Your task to perform on an android device: turn off javascript in the chrome app Image 0: 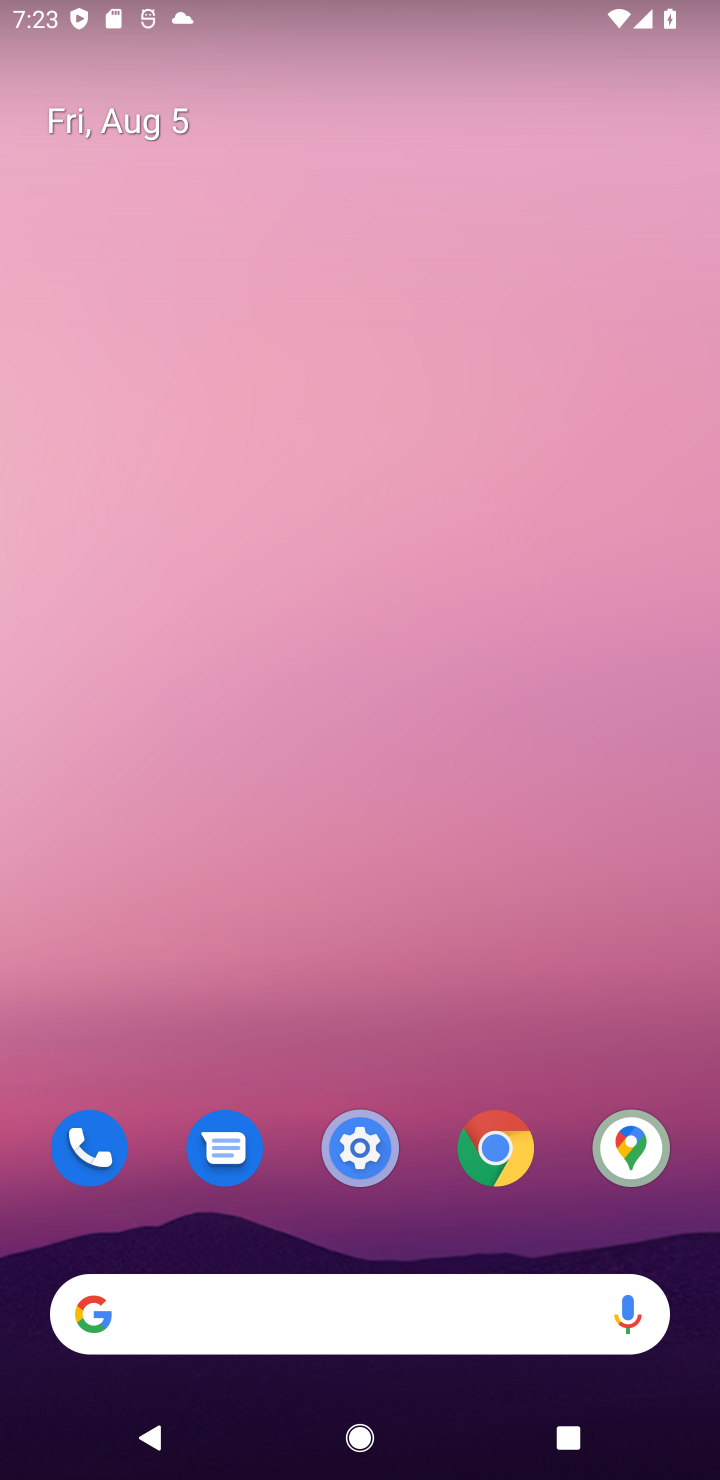
Step 0: click (476, 1165)
Your task to perform on an android device: turn off javascript in the chrome app Image 1: 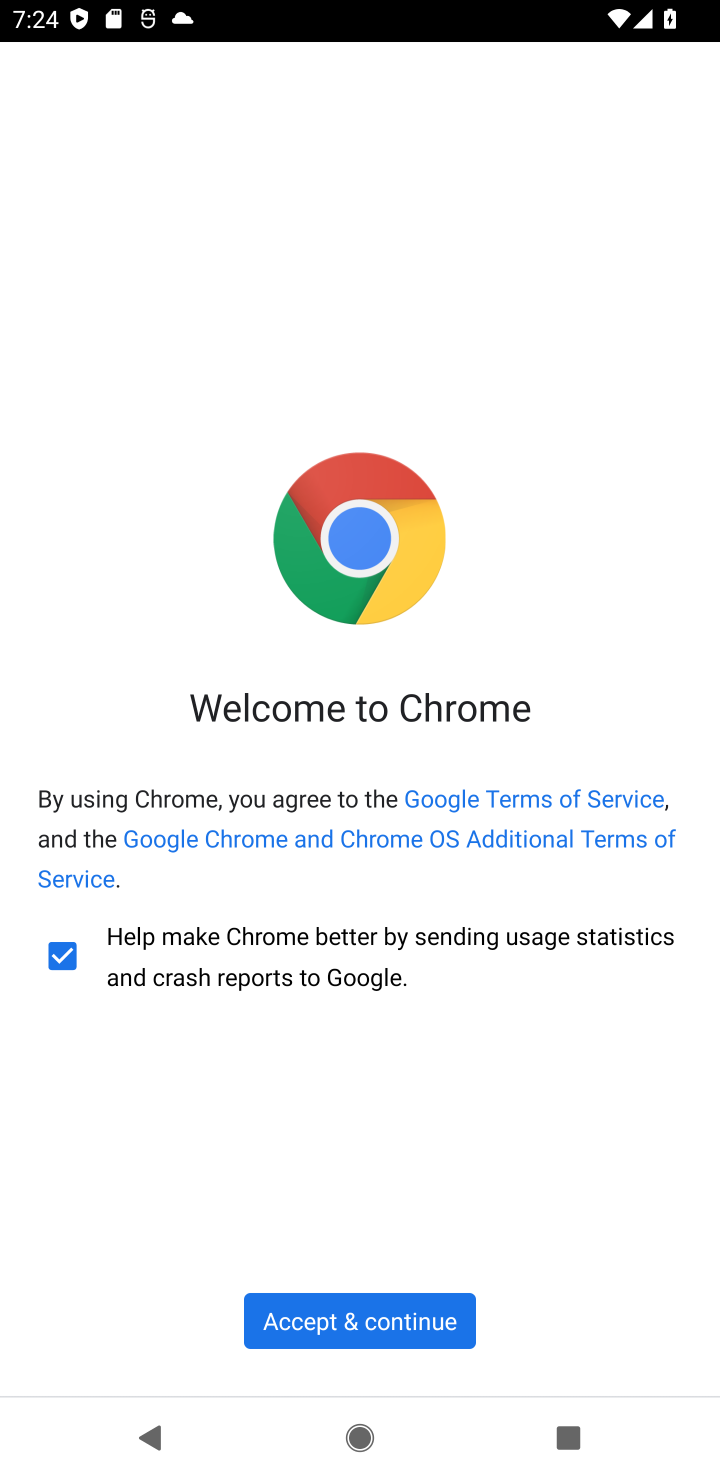
Step 1: click (321, 1297)
Your task to perform on an android device: turn off javascript in the chrome app Image 2: 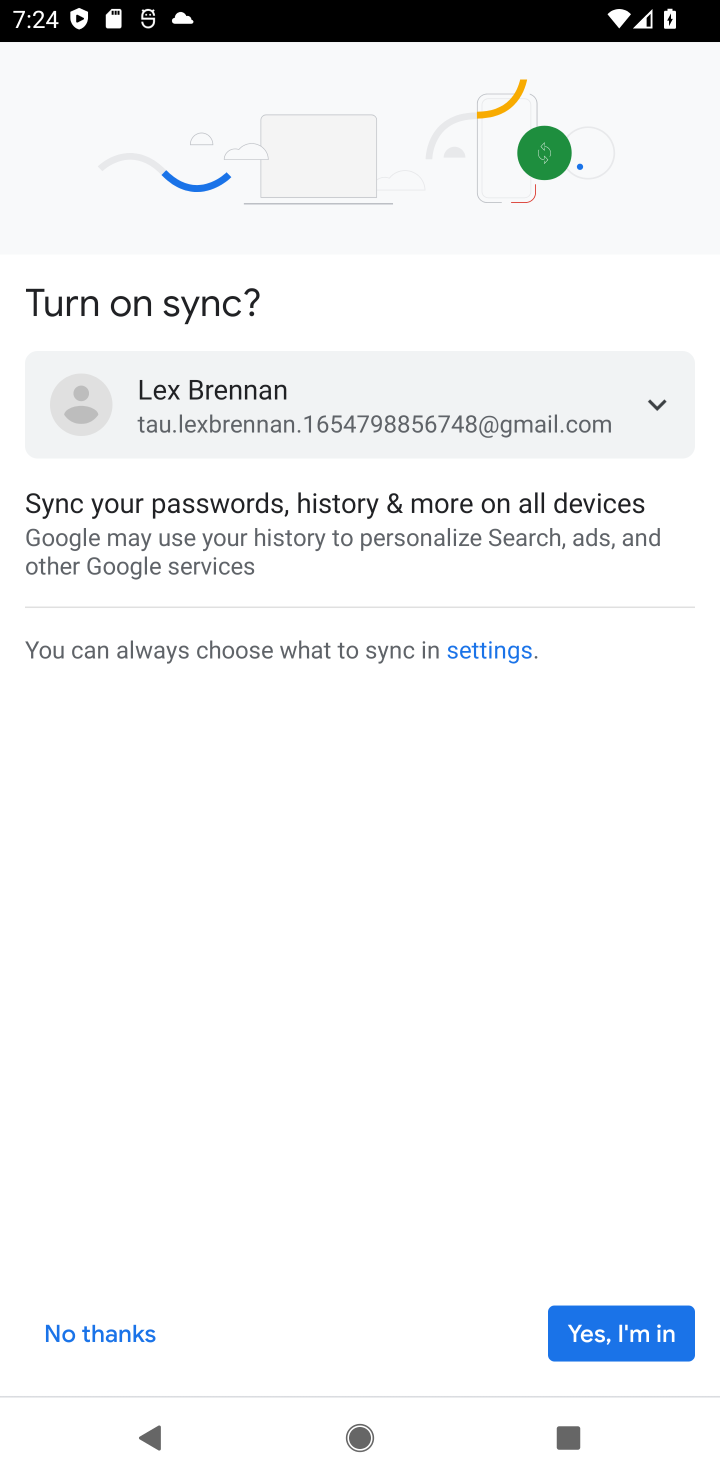
Step 2: click (571, 1327)
Your task to perform on an android device: turn off javascript in the chrome app Image 3: 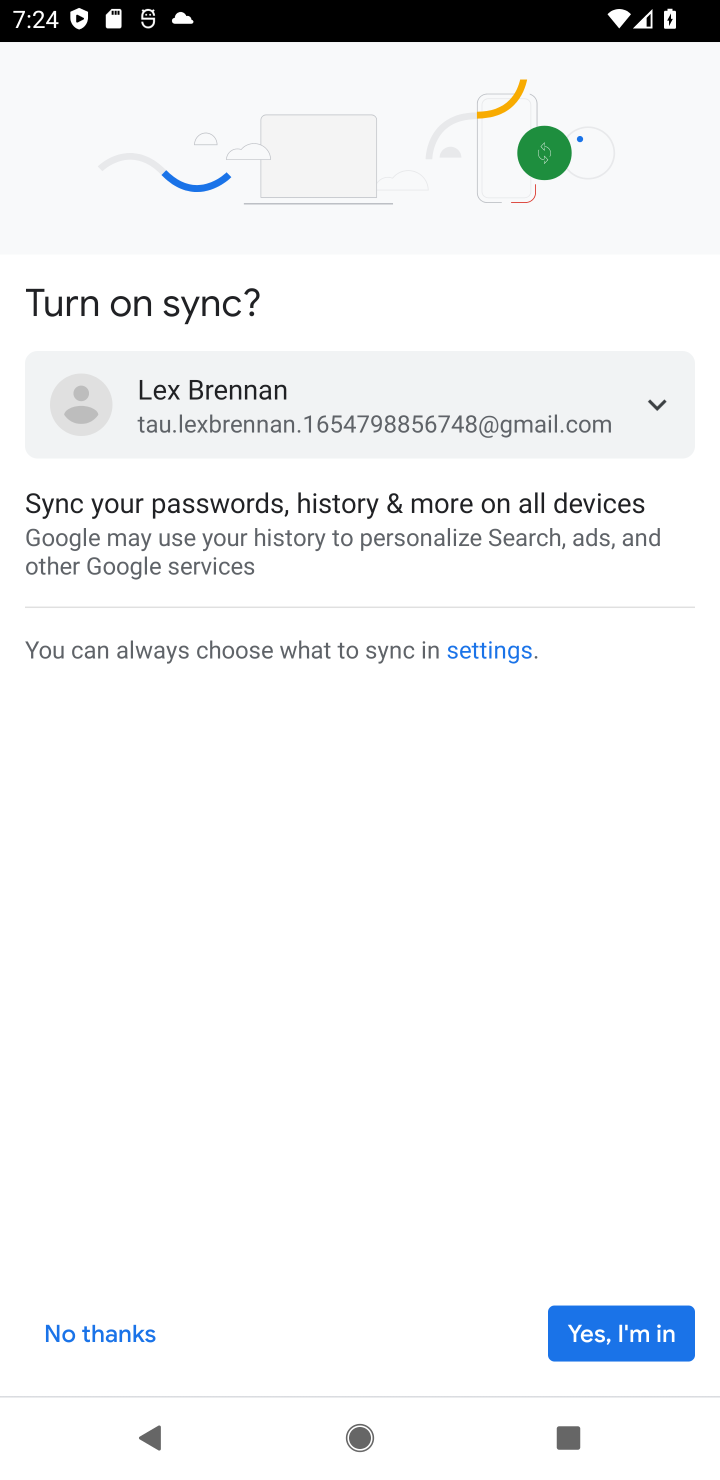
Step 3: click (571, 1327)
Your task to perform on an android device: turn off javascript in the chrome app Image 4: 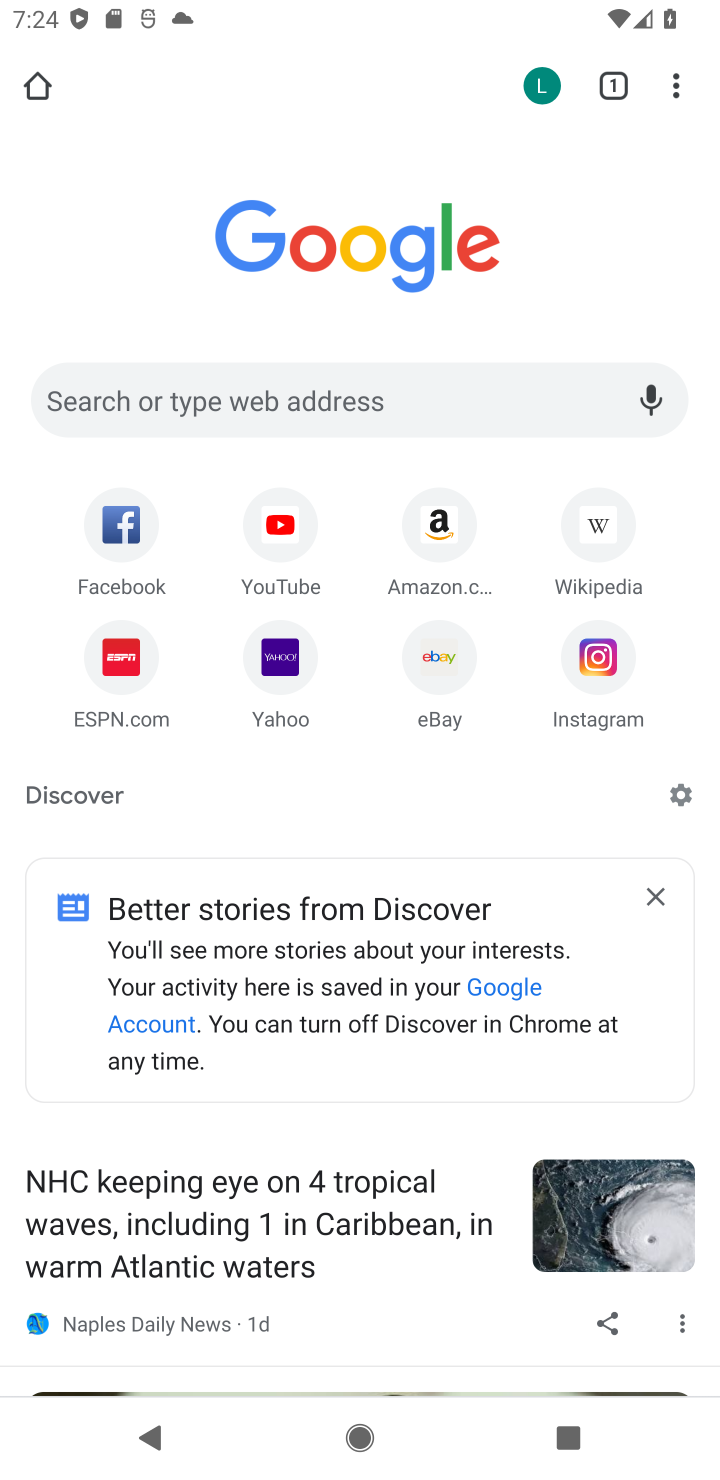
Step 4: click (667, 86)
Your task to perform on an android device: turn off javascript in the chrome app Image 5: 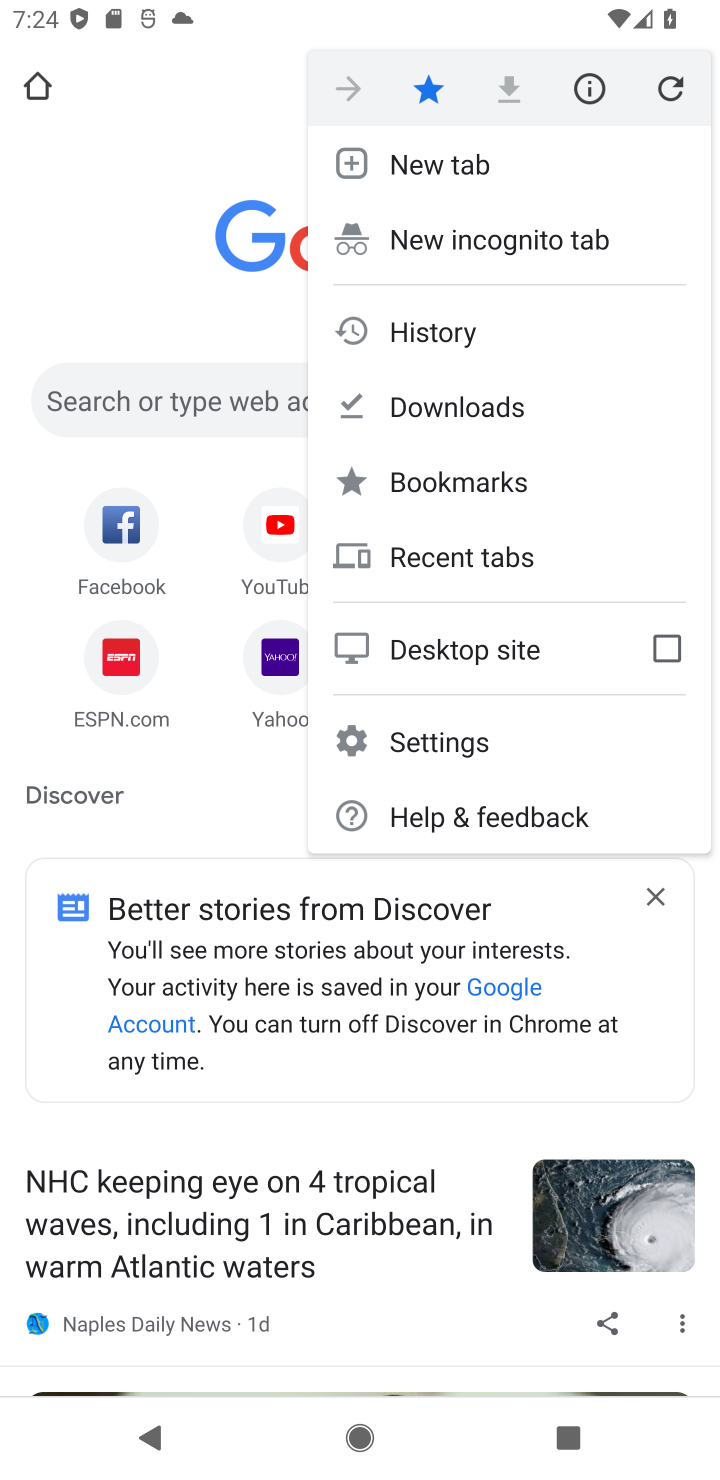
Step 5: click (508, 718)
Your task to perform on an android device: turn off javascript in the chrome app Image 6: 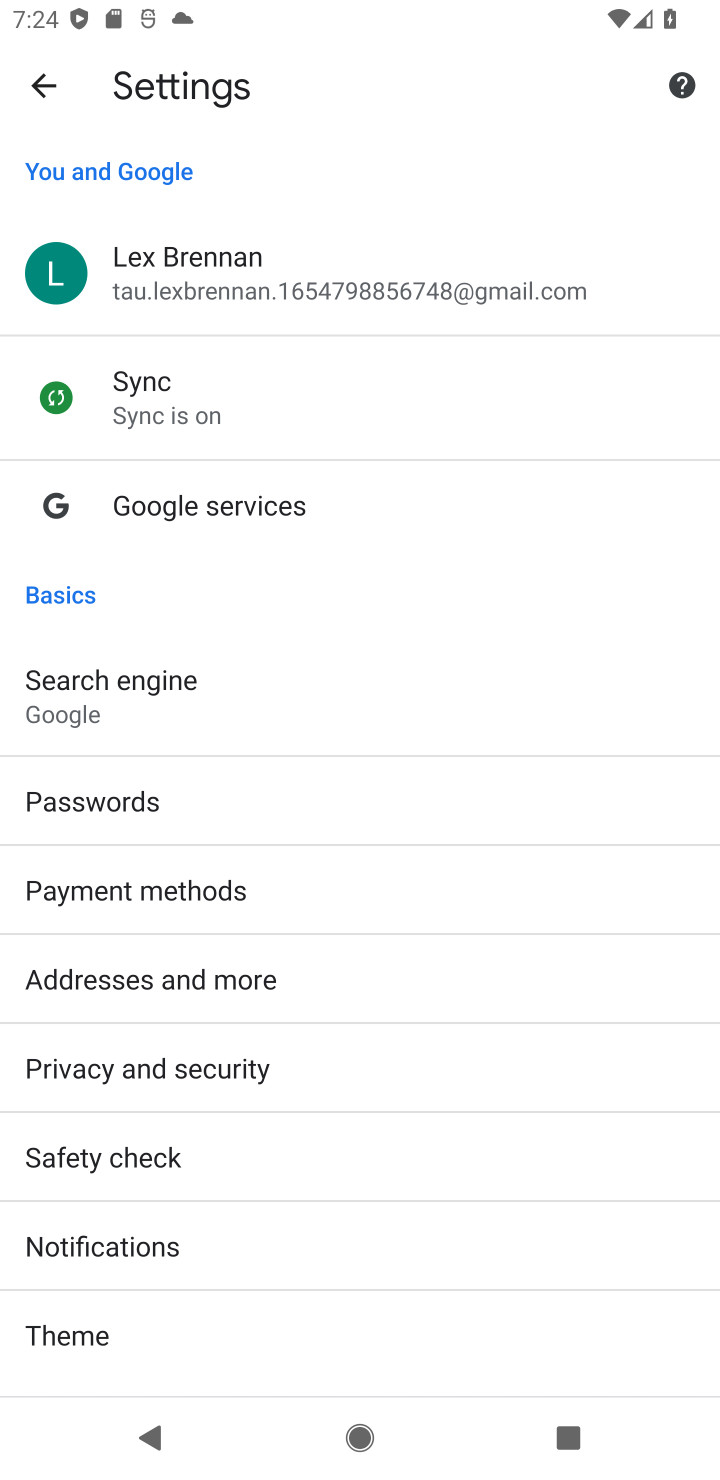
Step 6: drag from (294, 1246) to (274, 564)
Your task to perform on an android device: turn off javascript in the chrome app Image 7: 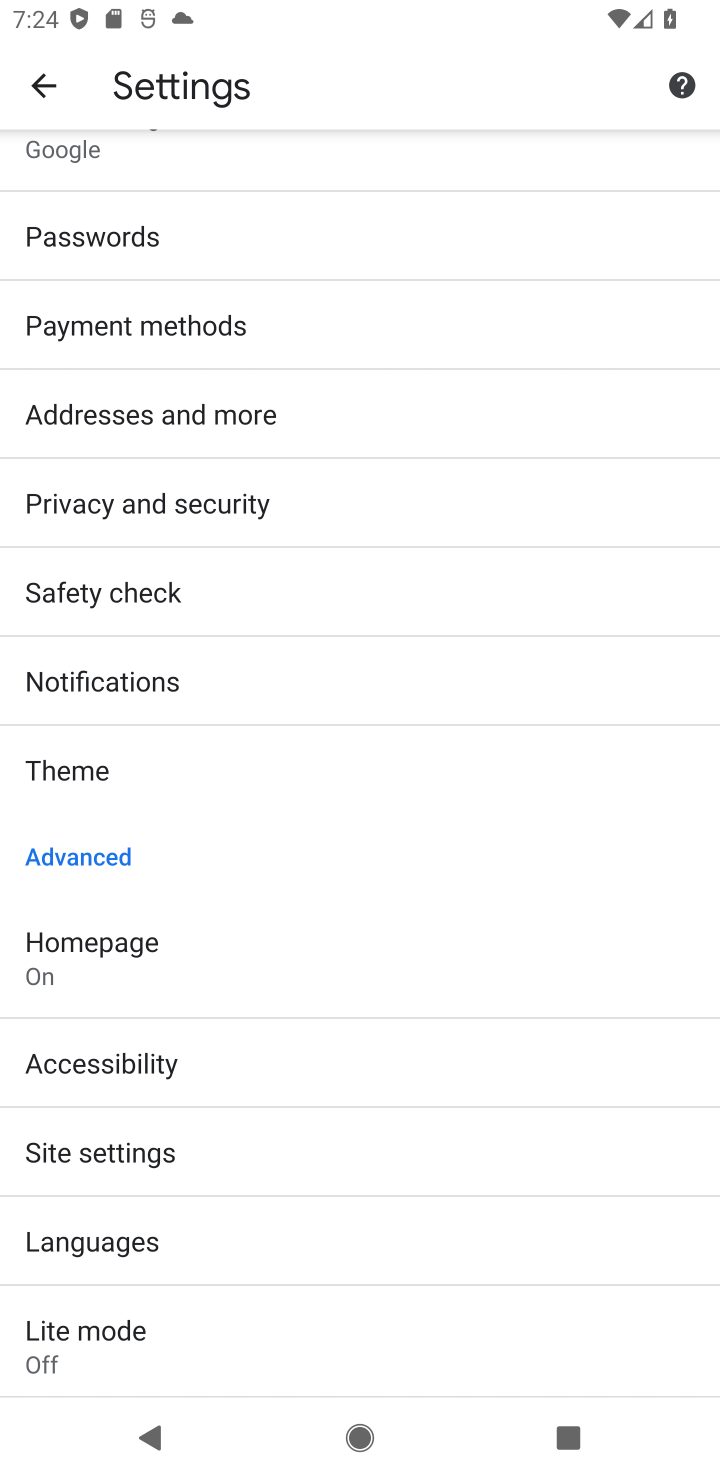
Step 7: click (307, 1164)
Your task to perform on an android device: turn off javascript in the chrome app Image 8: 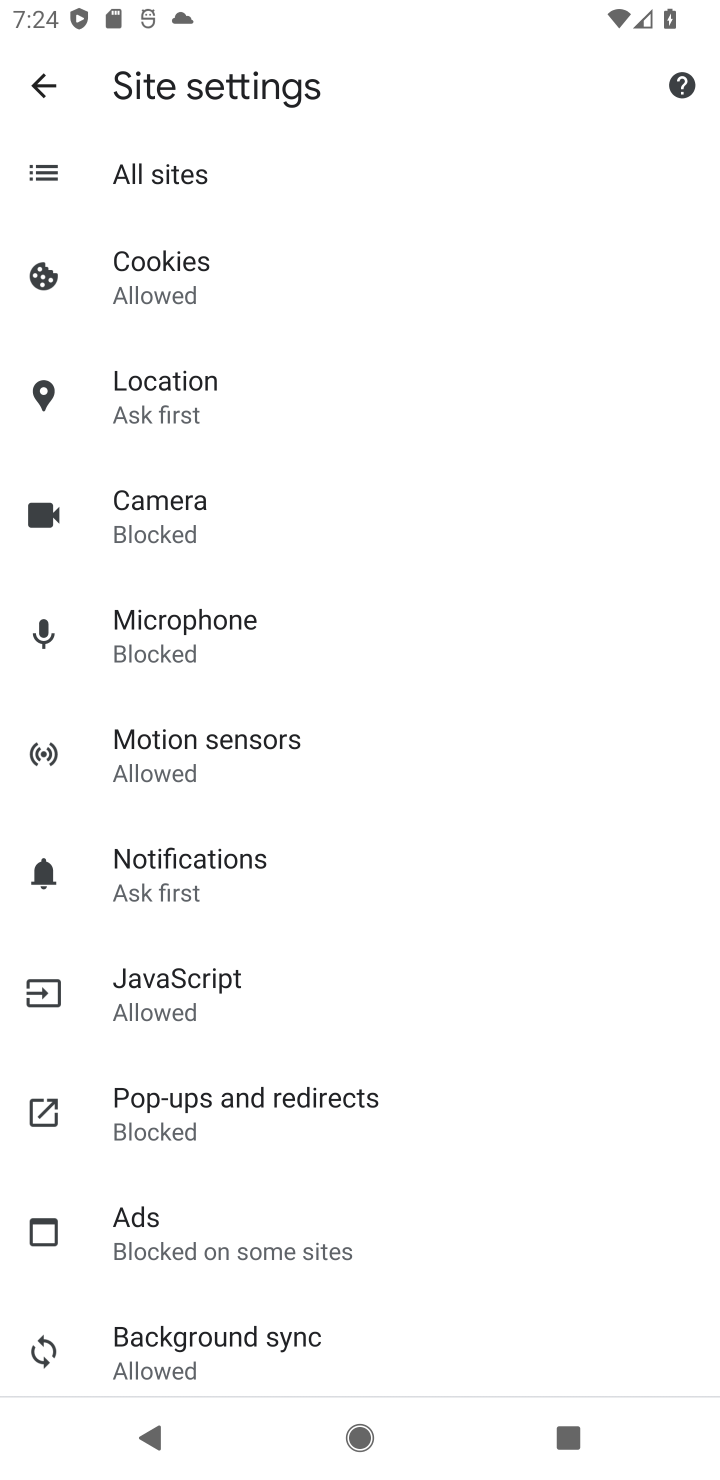
Step 8: click (387, 1003)
Your task to perform on an android device: turn off javascript in the chrome app Image 9: 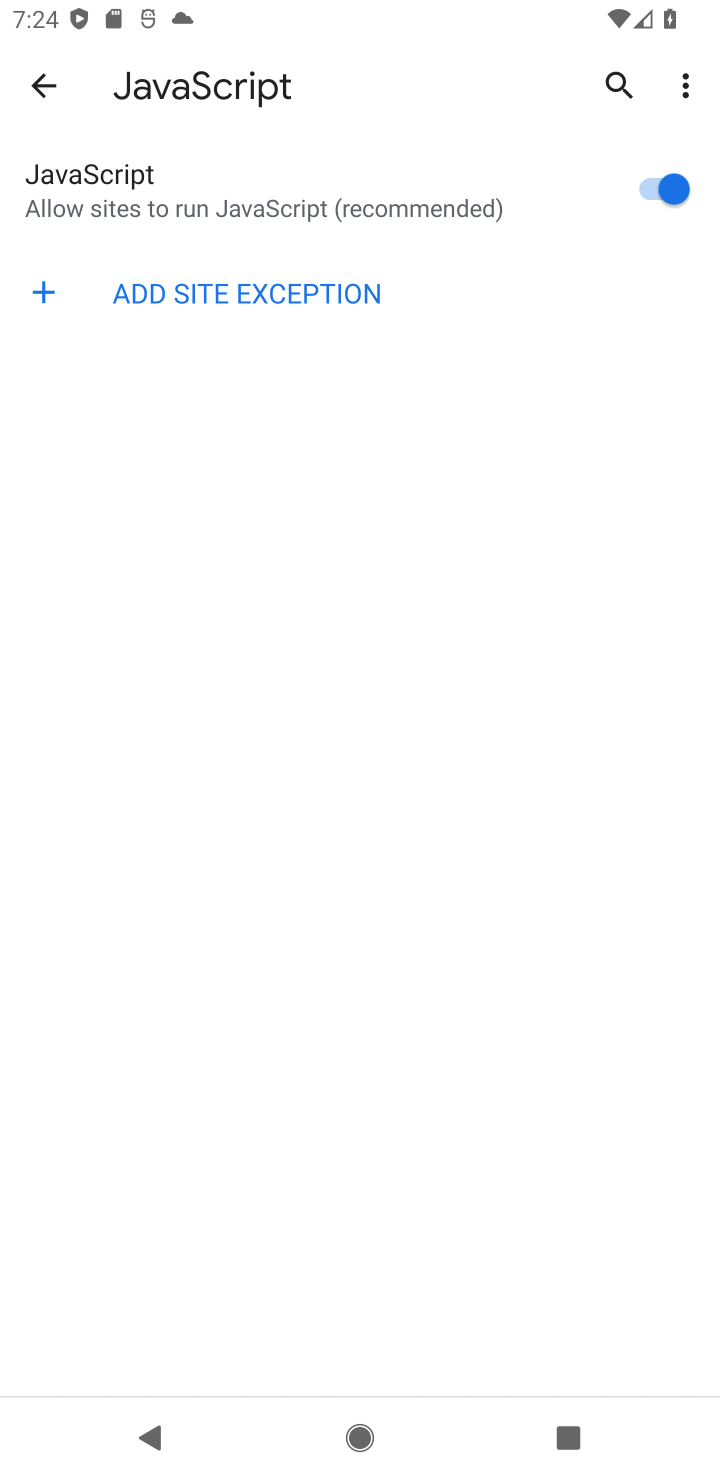
Step 9: click (691, 210)
Your task to perform on an android device: turn off javascript in the chrome app Image 10: 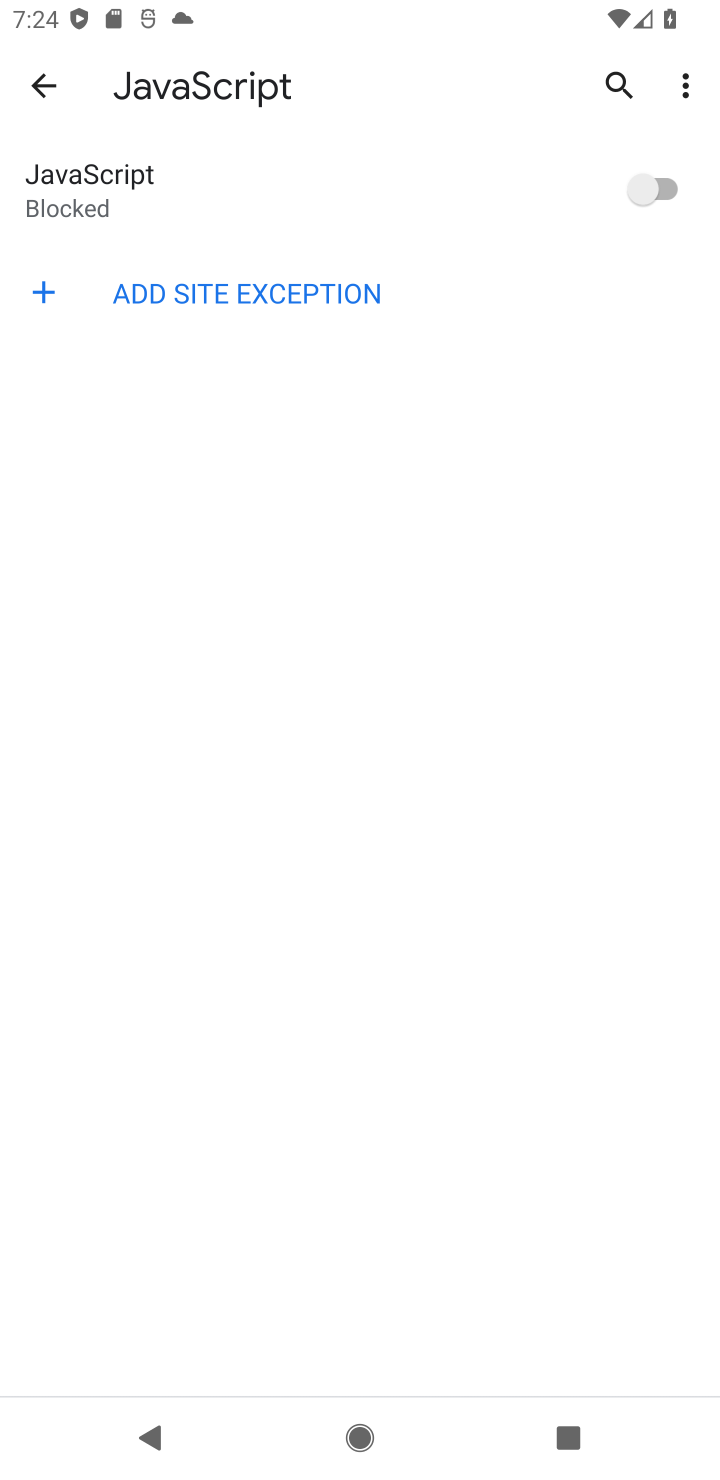
Step 10: task complete